Your task to perform on an android device: Open sound settings Image 0: 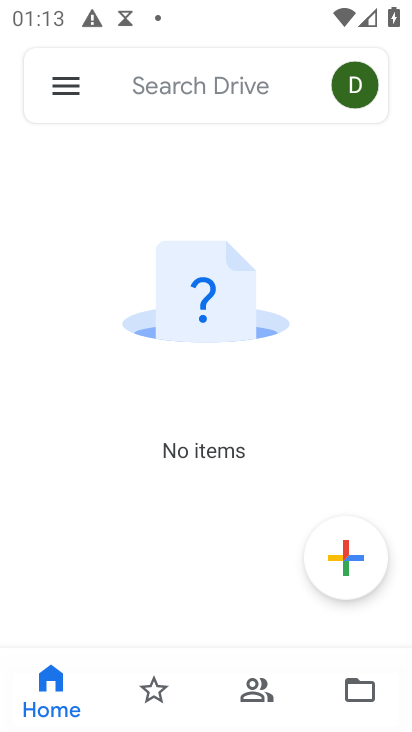
Step 0: press home button
Your task to perform on an android device: Open sound settings Image 1: 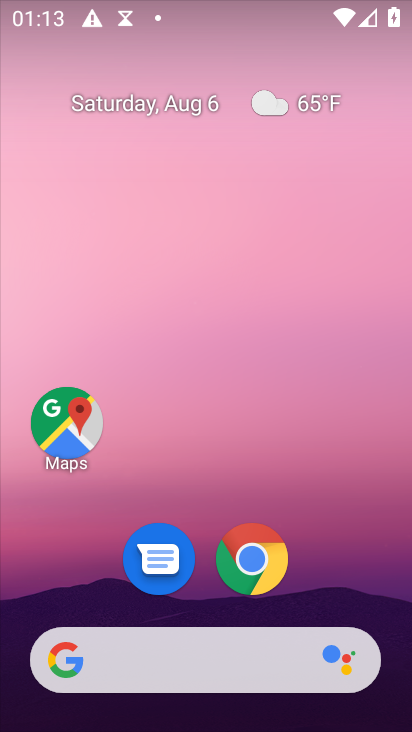
Step 1: drag from (341, 577) to (115, 12)
Your task to perform on an android device: Open sound settings Image 2: 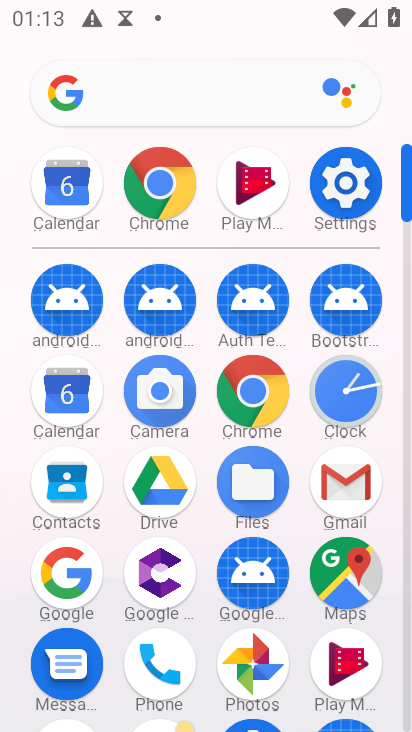
Step 2: click (345, 189)
Your task to perform on an android device: Open sound settings Image 3: 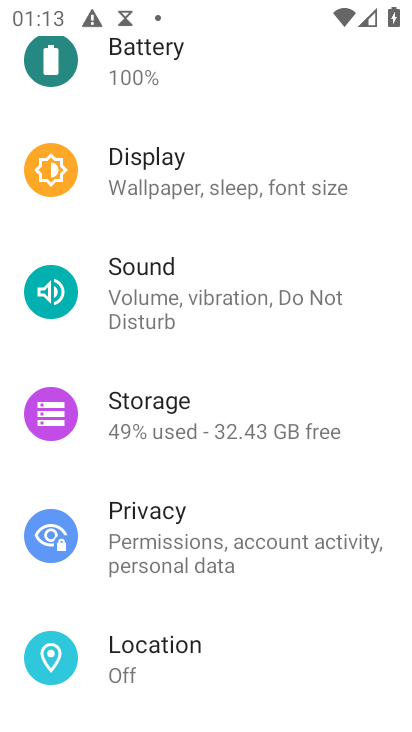
Step 3: click (311, 309)
Your task to perform on an android device: Open sound settings Image 4: 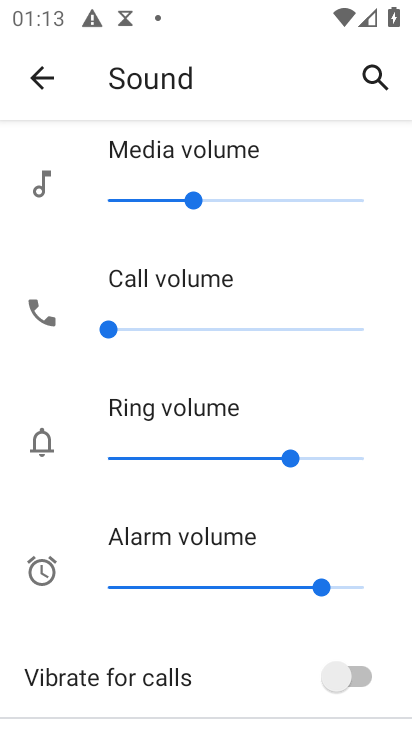
Step 4: task complete